Your task to perform on an android device: turn on javascript in the chrome app Image 0: 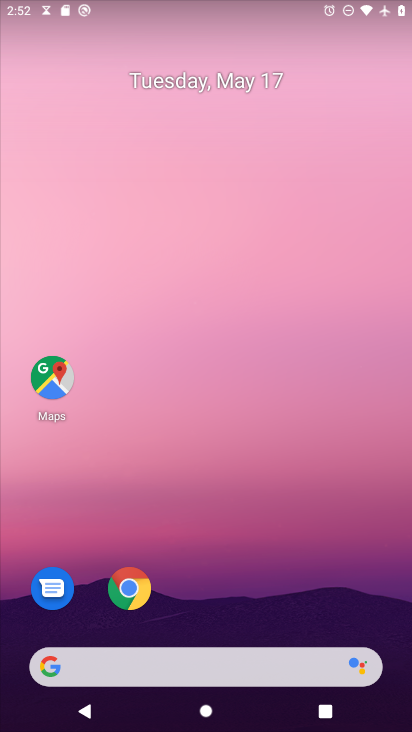
Step 0: click (134, 591)
Your task to perform on an android device: turn on javascript in the chrome app Image 1: 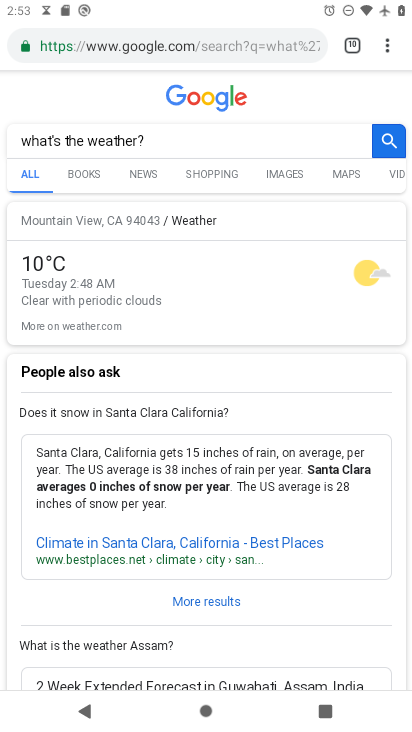
Step 1: click (384, 47)
Your task to perform on an android device: turn on javascript in the chrome app Image 2: 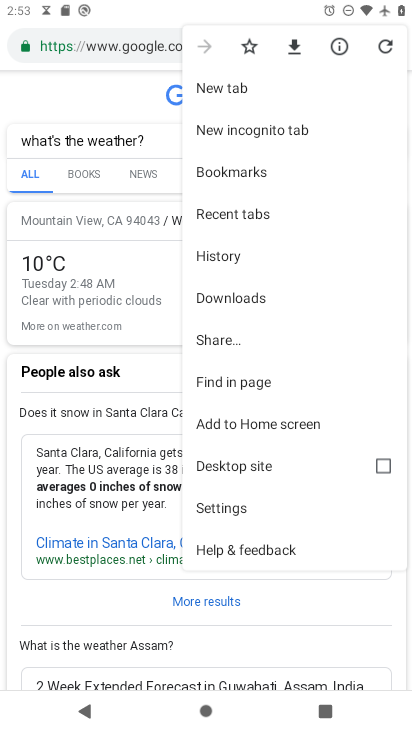
Step 2: click (243, 506)
Your task to perform on an android device: turn on javascript in the chrome app Image 3: 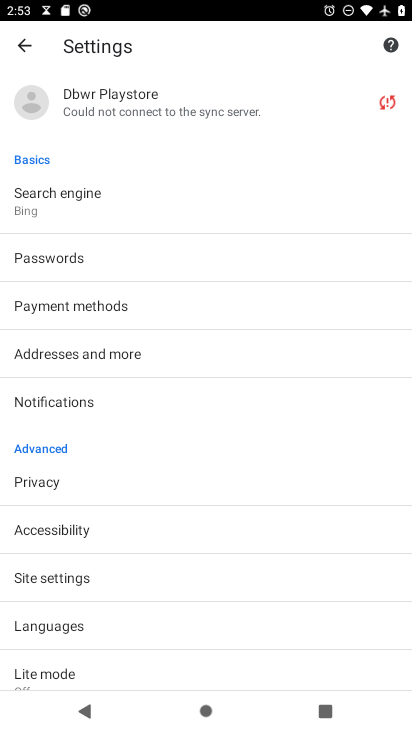
Step 3: click (57, 572)
Your task to perform on an android device: turn on javascript in the chrome app Image 4: 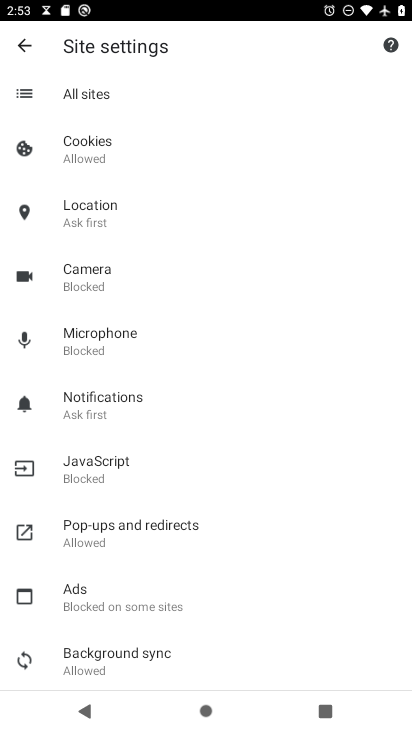
Step 4: click (101, 470)
Your task to perform on an android device: turn on javascript in the chrome app Image 5: 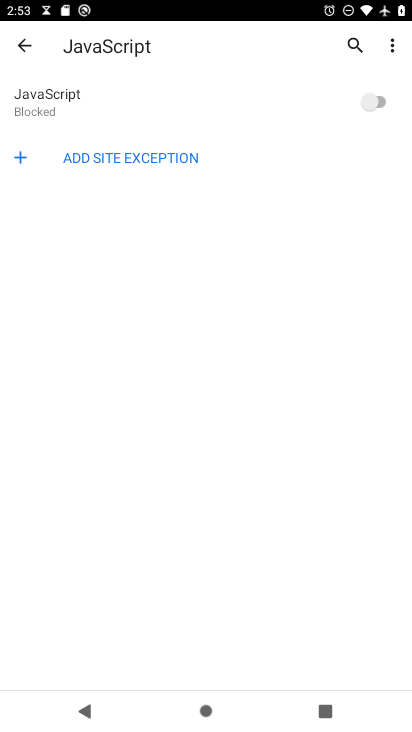
Step 5: click (382, 105)
Your task to perform on an android device: turn on javascript in the chrome app Image 6: 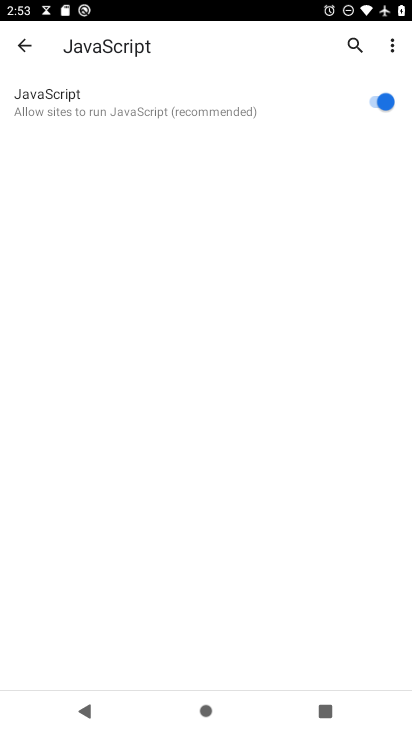
Step 6: task complete